Your task to perform on an android device: Open Yahoo.com Image 0: 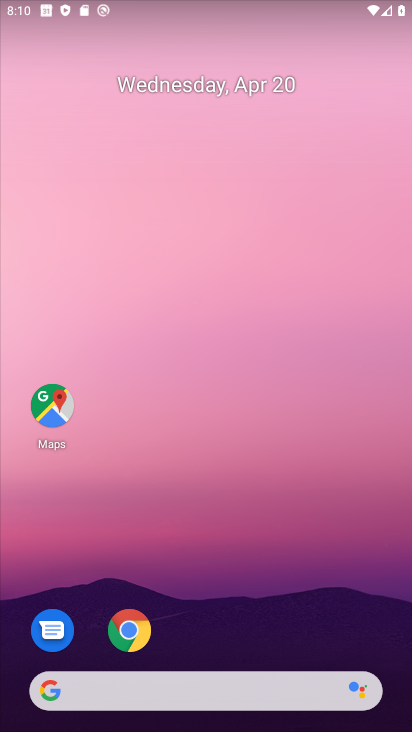
Step 0: click (136, 633)
Your task to perform on an android device: Open Yahoo.com Image 1: 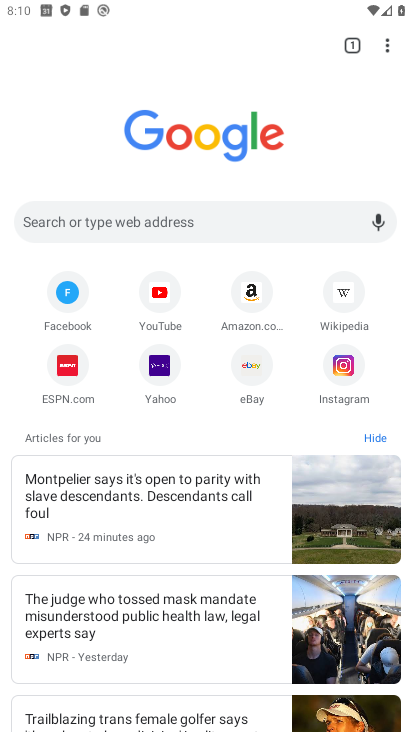
Step 1: click (159, 382)
Your task to perform on an android device: Open Yahoo.com Image 2: 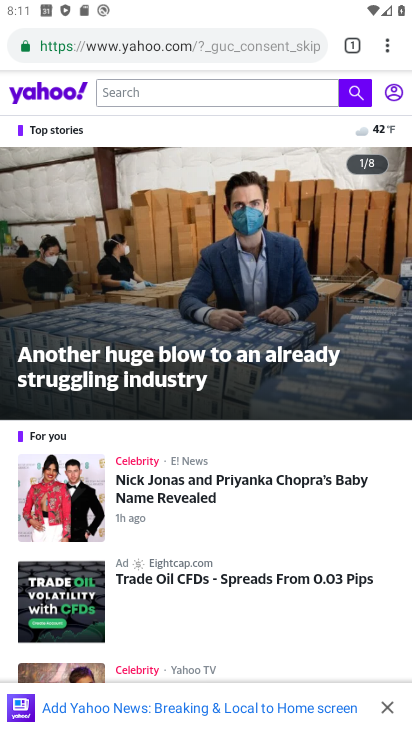
Step 2: task complete